Your task to perform on an android device: Open ESPN.com Image 0: 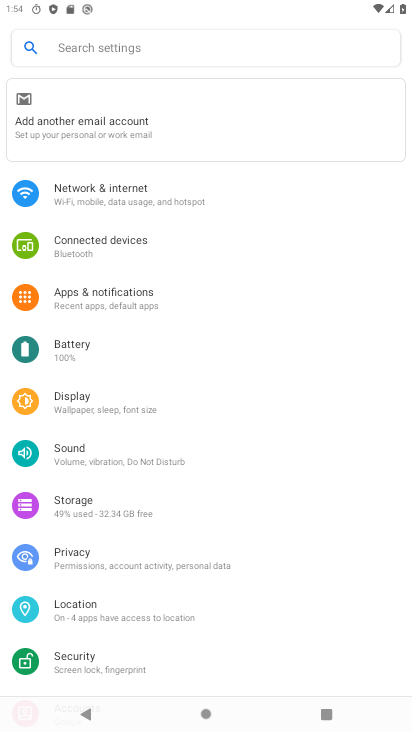
Step 0: press home button
Your task to perform on an android device: Open ESPN.com Image 1: 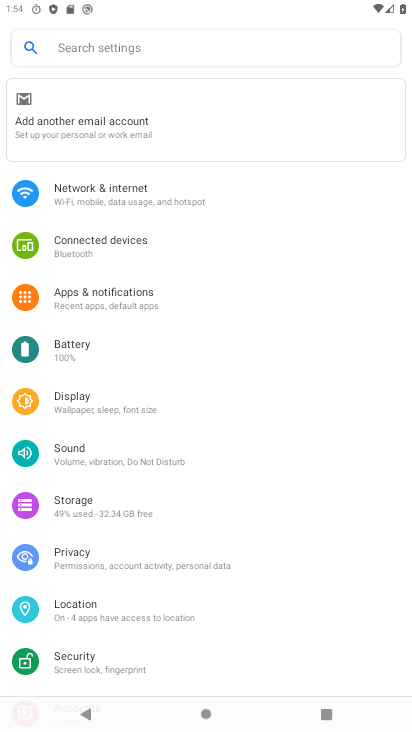
Step 1: press home button
Your task to perform on an android device: Open ESPN.com Image 2: 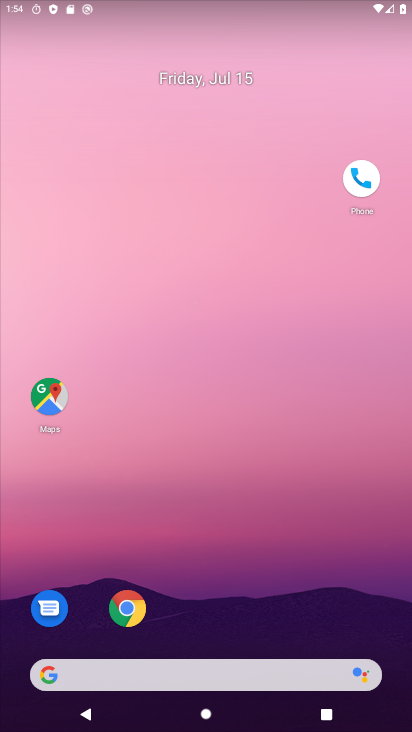
Step 2: drag from (169, 644) to (223, 247)
Your task to perform on an android device: Open ESPN.com Image 3: 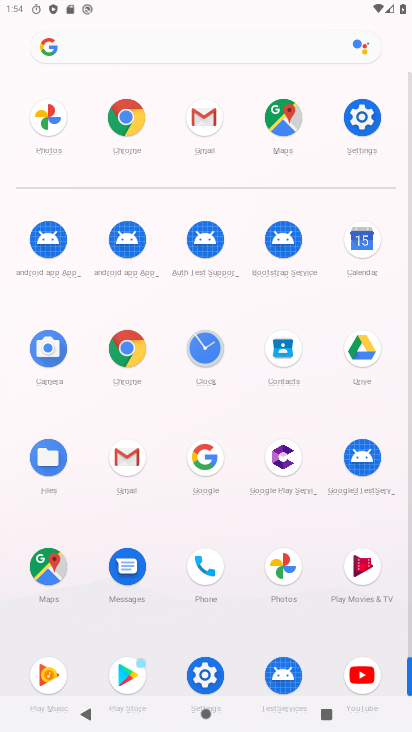
Step 3: click (160, 45)
Your task to perform on an android device: Open ESPN.com Image 4: 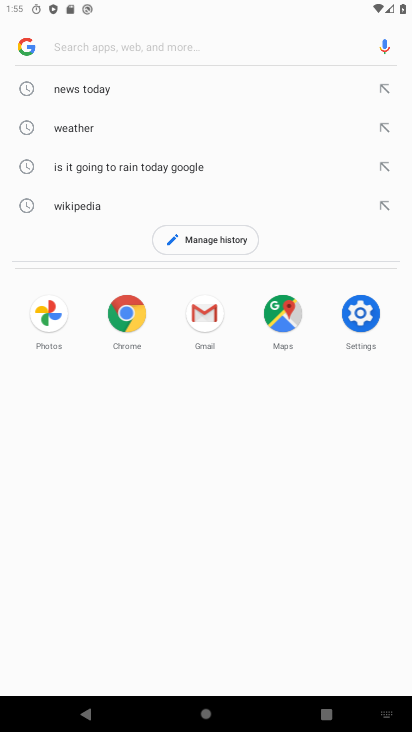
Step 4: type "espn.com"
Your task to perform on an android device: Open ESPN.com Image 5: 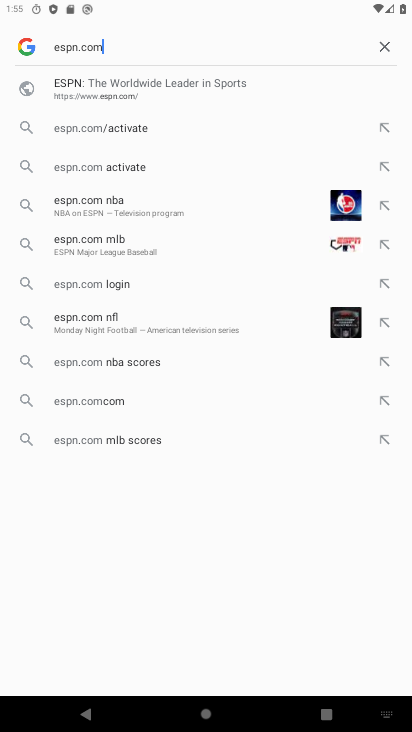
Step 5: click (85, 87)
Your task to perform on an android device: Open ESPN.com Image 6: 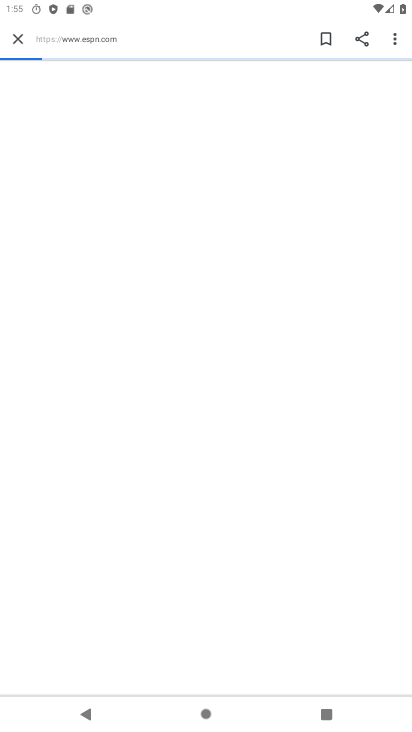
Step 6: task complete